Your task to perform on an android device: open device folders in google photos Image 0: 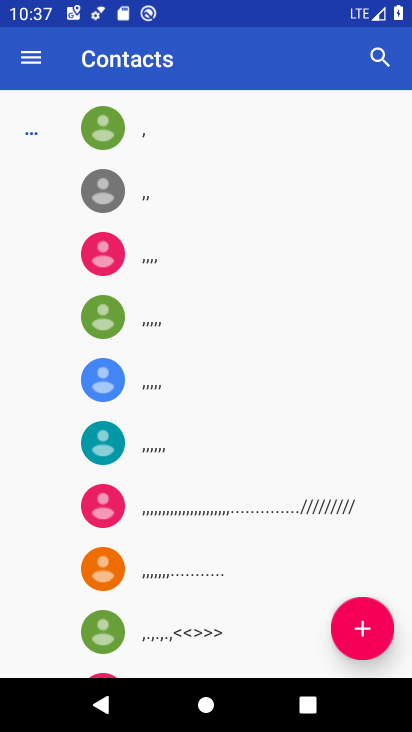
Step 0: press home button
Your task to perform on an android device: open device folders in google photos Image 1: 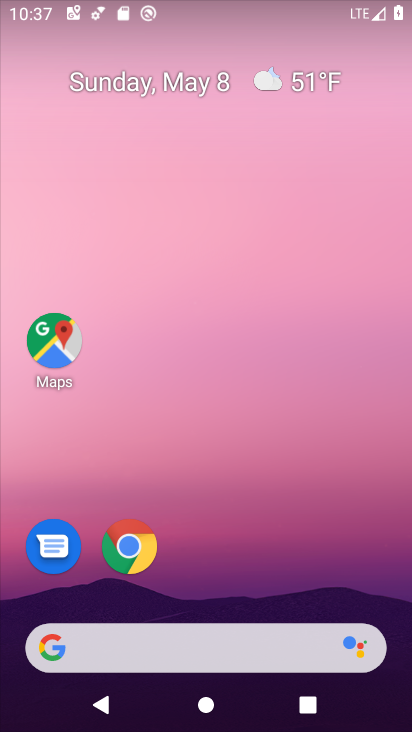
Step 1: drag from (400, 650) to (290, 107)
Your task to perform on an android device: open device folders in google photos Image 2: 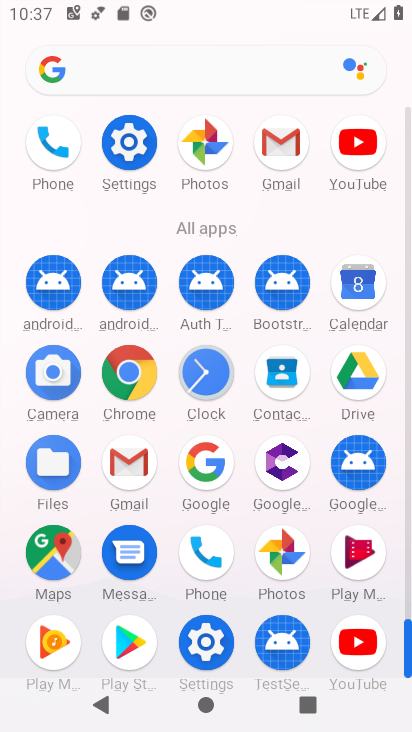
Step 2: click (285, 550)
Your task to perform on an android device: open device folders in google photos Image 3: 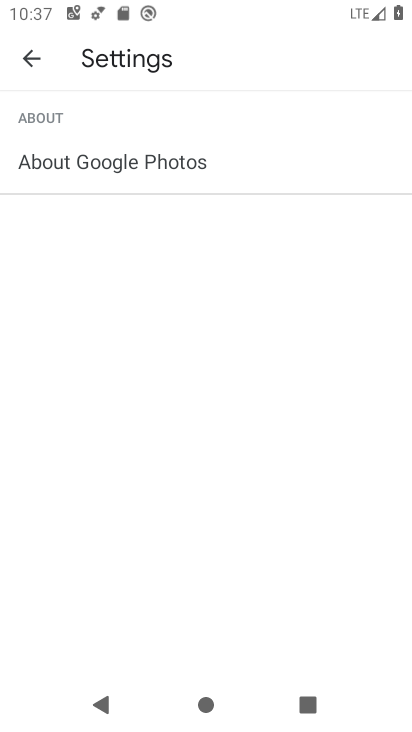
Step 3: press back button
Your task to perform on an android device: open device folders in google photos Image 4: 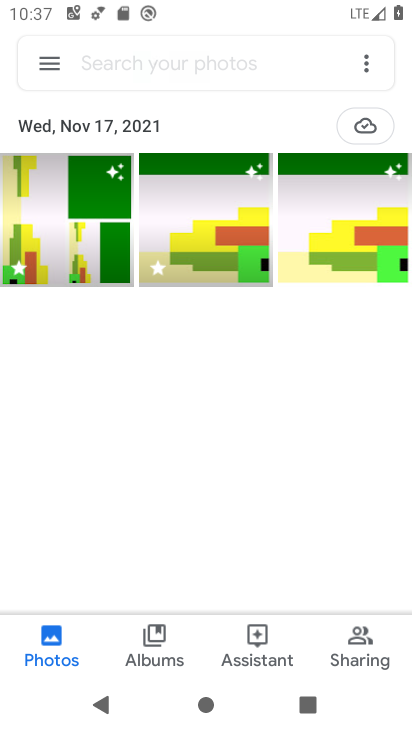
Step 4: click (48, 64)
Your task to perform on an android device: open device folders in google photos Image 5: 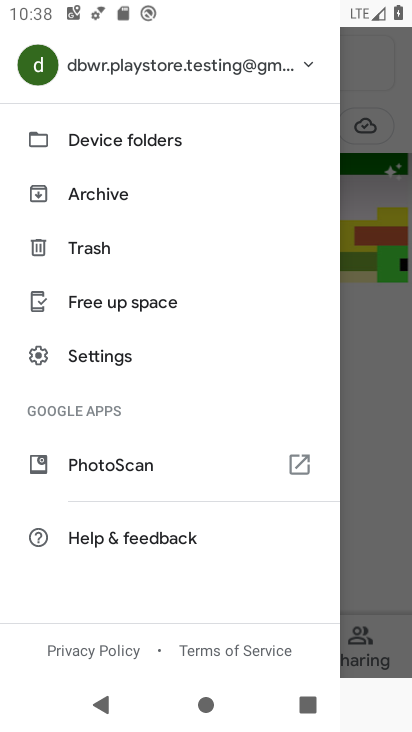
Step 5: click (104, 134)
Your task to perform on an android device: open device folders in google photos Image 6: 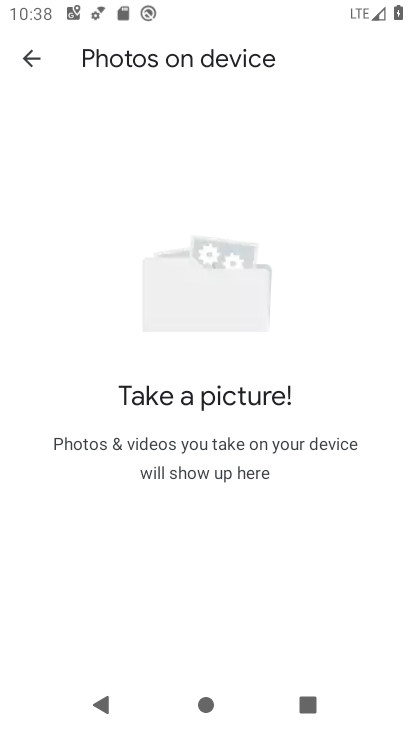
Step 6: task complete